Your task to perform on an android device: Open battery settings Image 0: 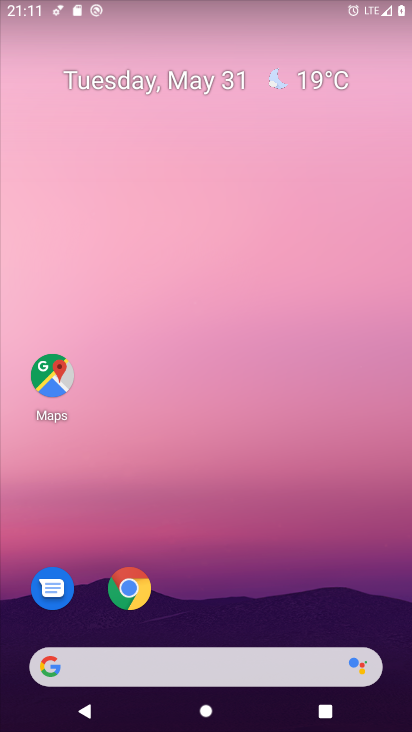
Step 0: press home button
Your task to perform on an android device: Open battery settings Image 1: 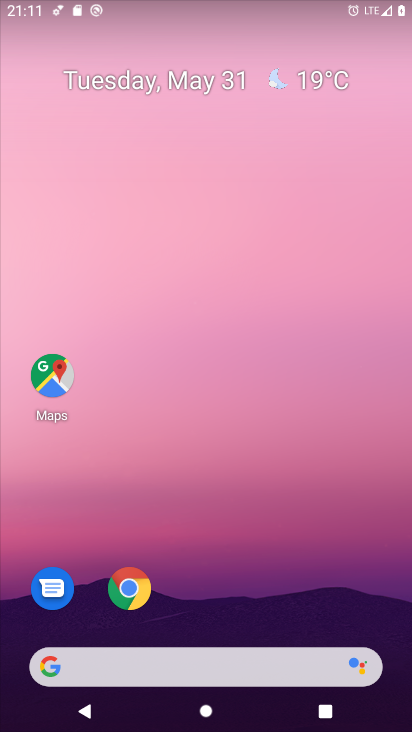
Step 1: drag from (152, 670) to (299, 53)
Your task to perform on an android device: Open battery settings Image 2: 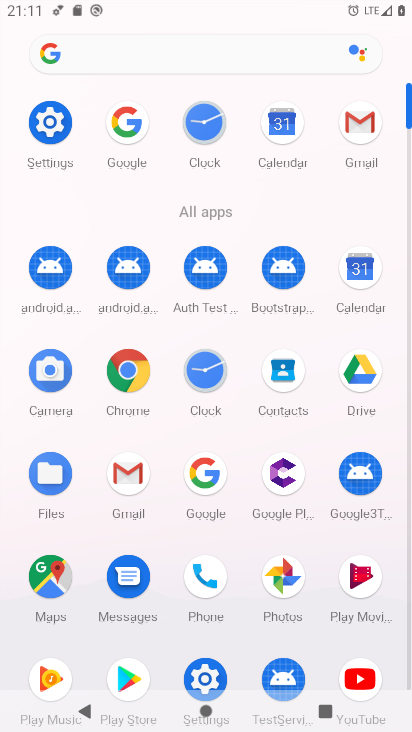
Step 2: click (61, 131)
Your task to perform on an android device: Open battery settings Image 3: 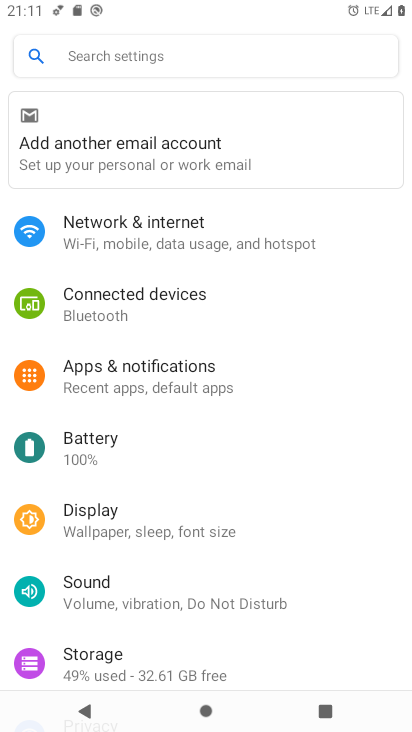
Step 3: click (86, 442)
Your task to perform on an android device: Open battery settings Image 4: 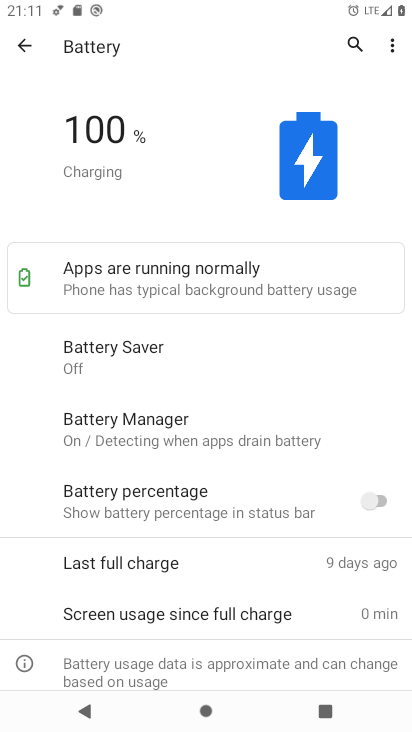
Step 4: task complete